Your task to perform on an android device: empty trash in the gmail app Image 0: 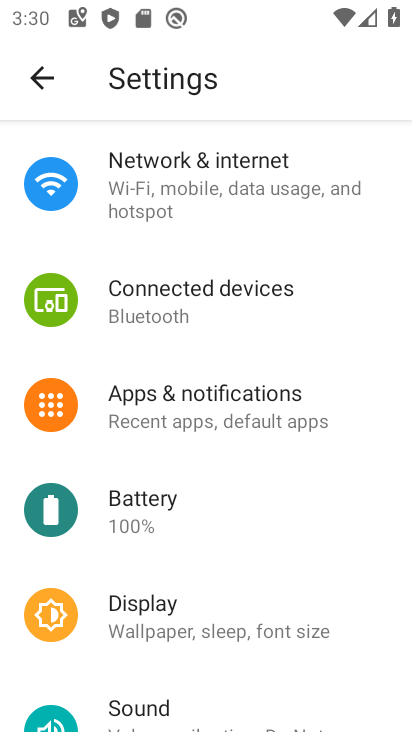
Step 0: press home button
Your task to perform on an android device: empty trash in the gmail app Image 1: 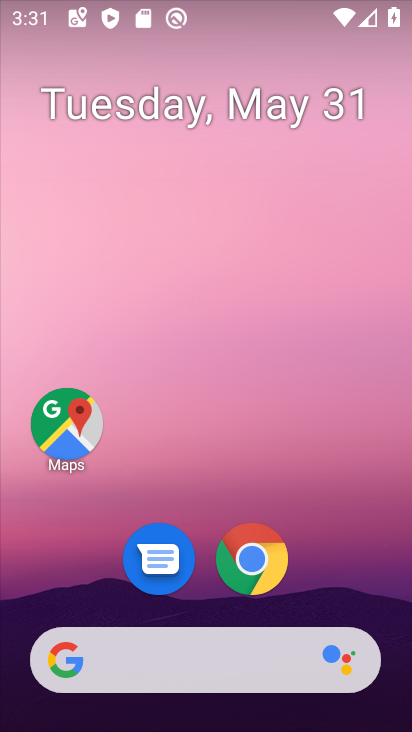
Step 1: drag from (220, 708) to (250, 128)
Your task to perform on an android device: empty trash in the gmail app Image 2: 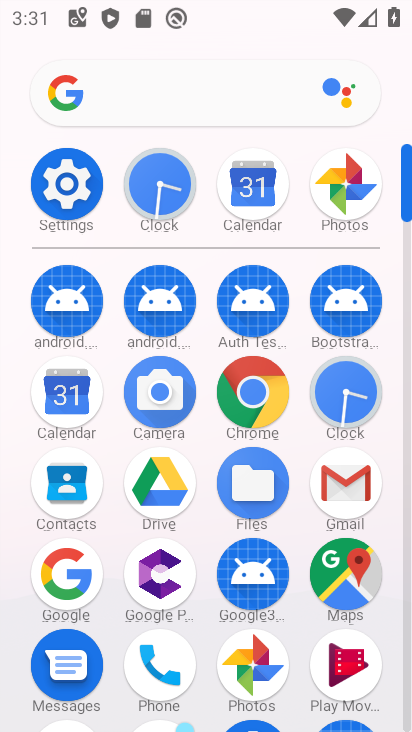
Step 2: click (339, 478)
Your task to perform on an android device: empty trash in the gmail app Image 3: 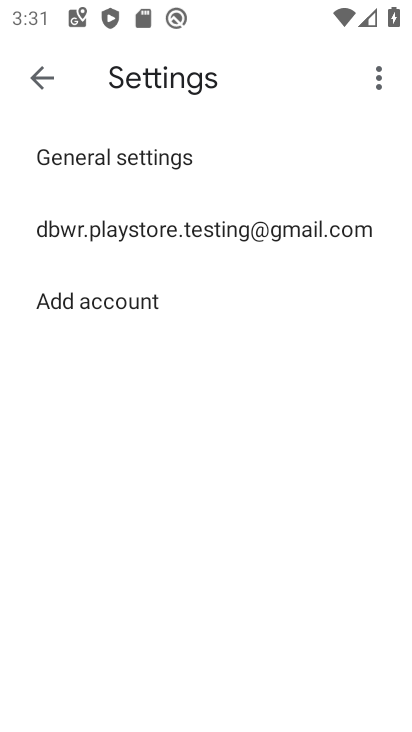
Step 3: click (37, 78)
Your task to perform on an android device: empty trash in the gmail app Image 4: 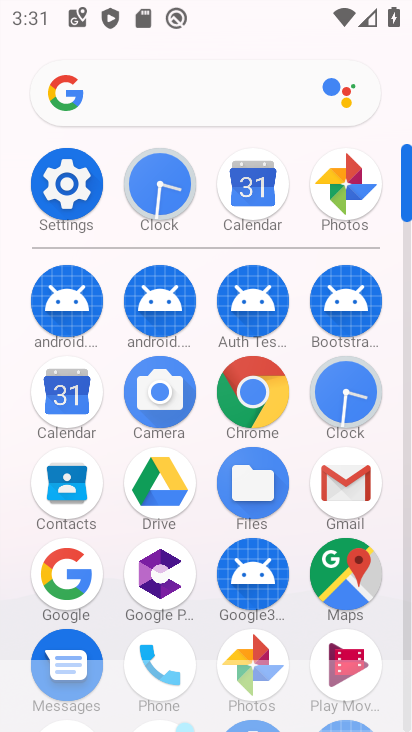
Step 4: click (333, 491)
Your task to perform on an android device: empty trash in the gmail app Image 5: 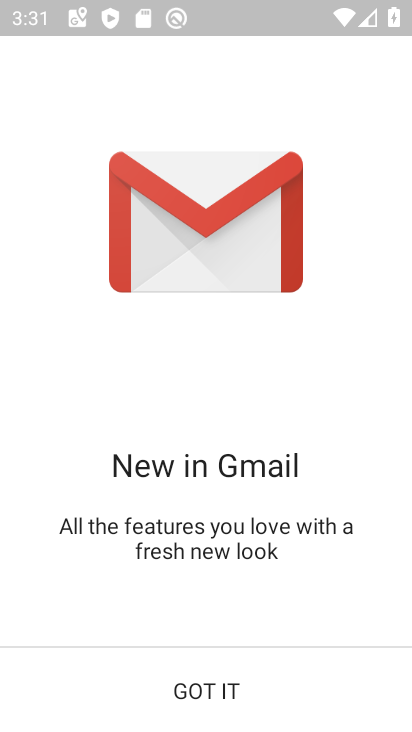
Step 5: click (203, 687)
Your task to perform on an android device: empty trash in the gmail app Image 6: 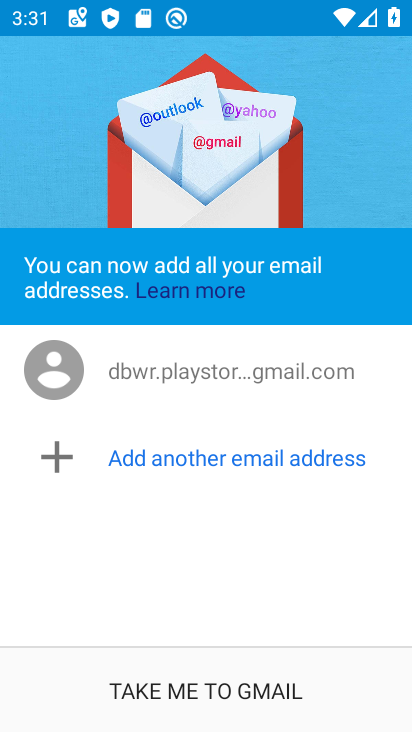
Step 6: click (194, 695)
Your task to perform on an android device: empty trash in the gmail app Image 7: 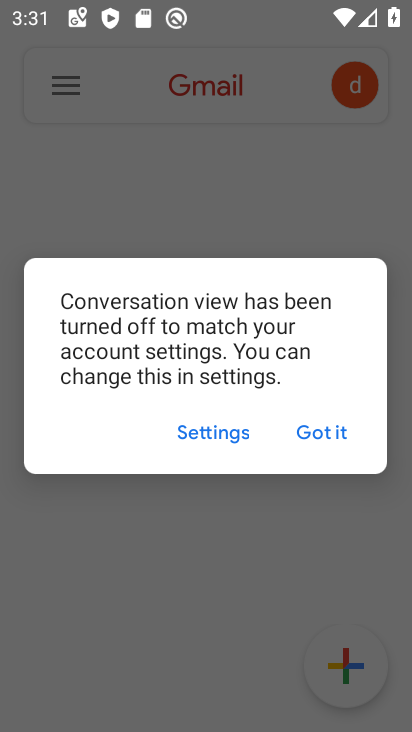
Step 7: click (311, 433)
Your task to perform on an android device: empty trash in the gmail app Image 8: 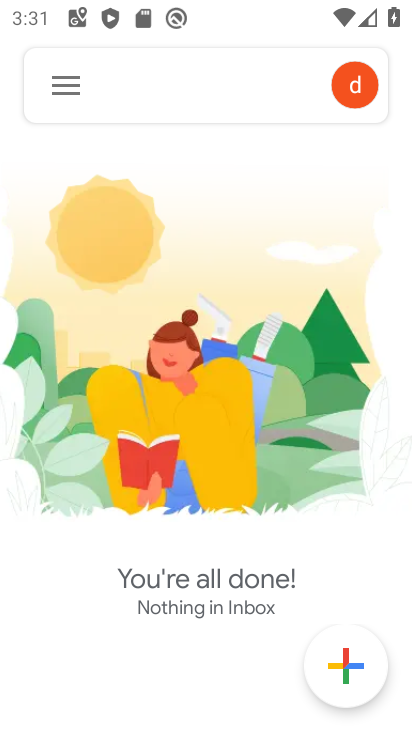
Step 8: click (63, 84)
Your task to perform on an android device: empty trash in the gmail app Image 9: 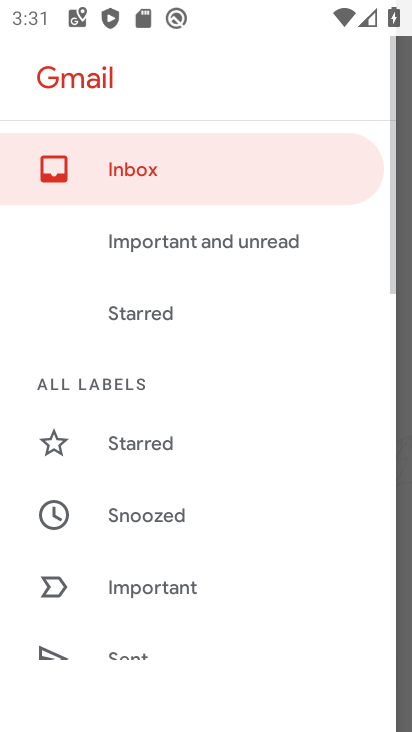
Step 9: drag from (156, 624) to (156, 528)
Your task to perform on an android device: empty trash in the gmail app Image 10: 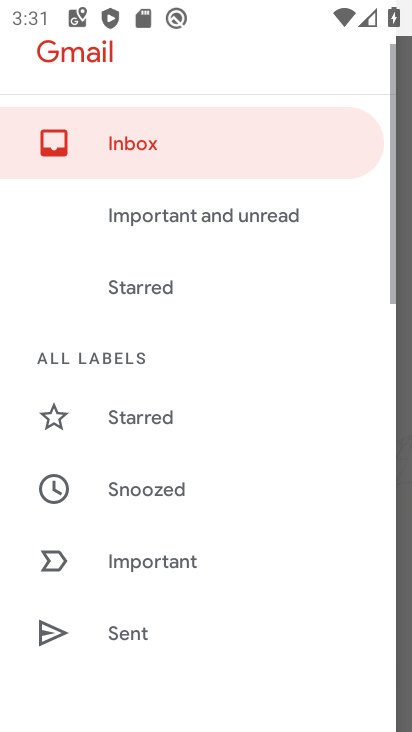
Step 10: drag from (154, 363) to (154, 300)
Your task to perform on an android device: empty trash in the gmail app Image 11: 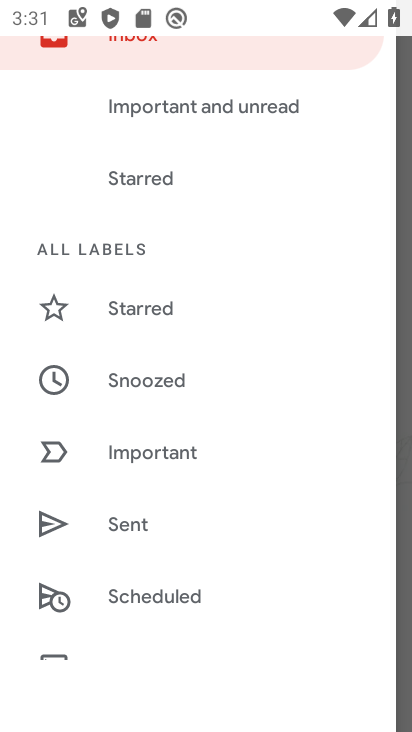
Step 11: drag from (219, 654) to (218, 341)
Your task to perform on an android device: empty trash in the gmail app Image 12: 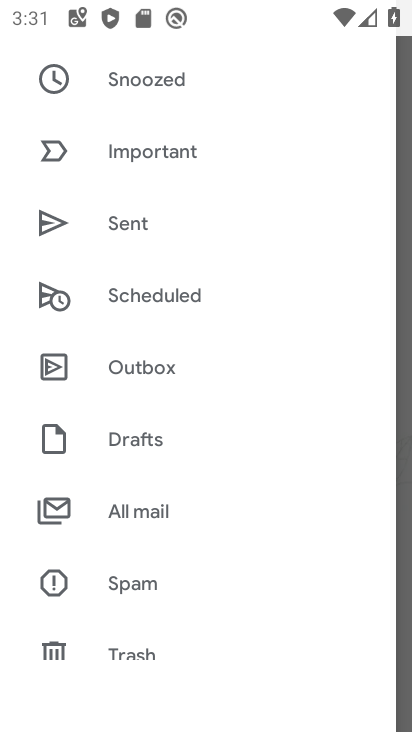
Step 12: click (154, 649)
Your task to perform on an android device: empty trash in the gmail app Image 13: 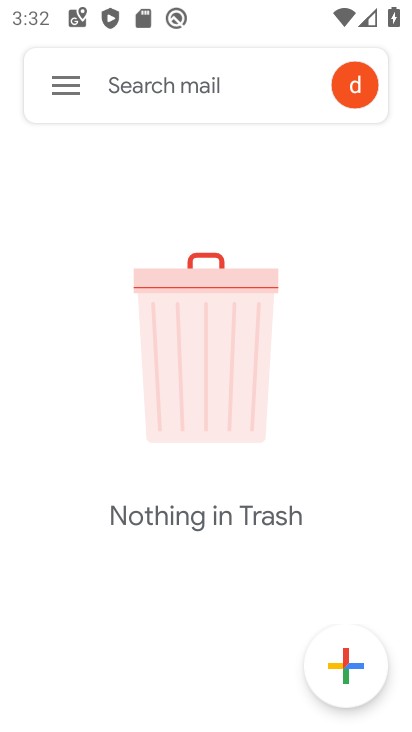
Step 13: task complete